Your task to perform on an android device: toggle priority inbox in the gmail app Image 0: 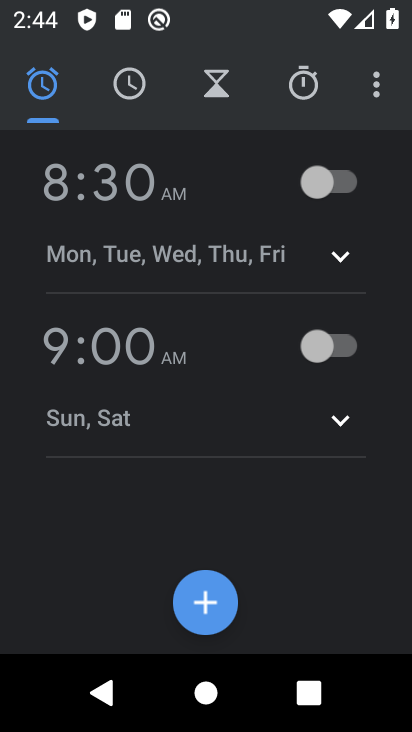
Step 0: press home button
Your task to perform on an android device: toggle priority inbox in the gmail app Image 1: 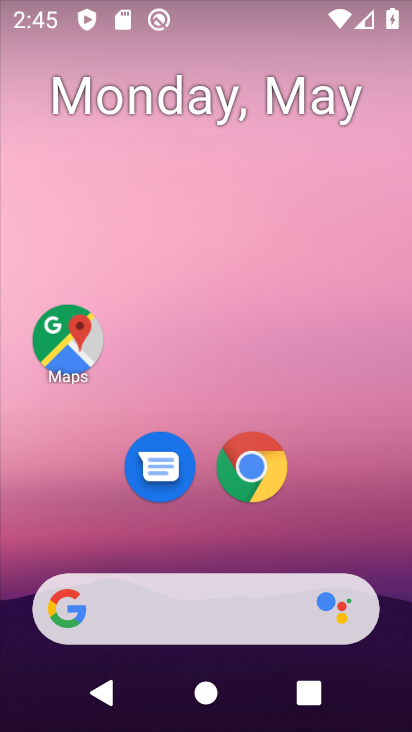
Step 1: drag from (309, 546) to (269, 52)
Your task to perform on an android device: toggle priority inbox in the gmail app Image 2: 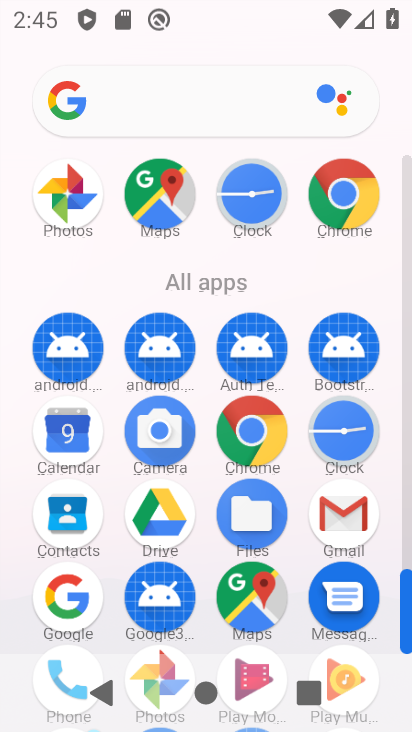
Step 2: click (351, 523)
Your task to perform on an android device: toggle priority inbox in the gmail app Image 3: 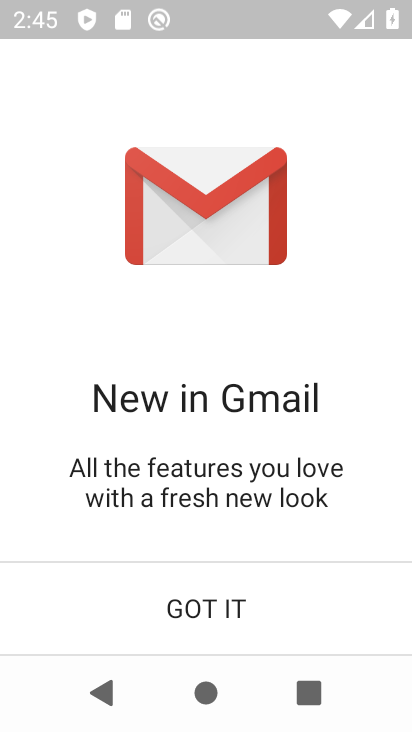
Step 3: click (263, 594)
Your task to perform on an android device: toggle priority inbox in the gmail app Image 4: 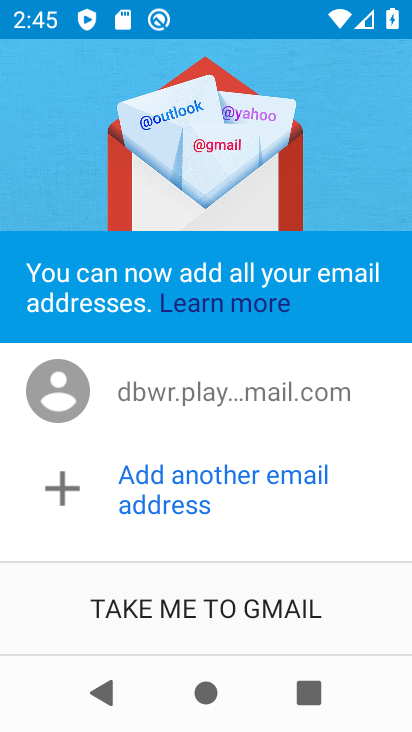
Step 4: click (249, 592)
Your task to perform on an android device: toggle priority inbox in the gmail app Image 5: 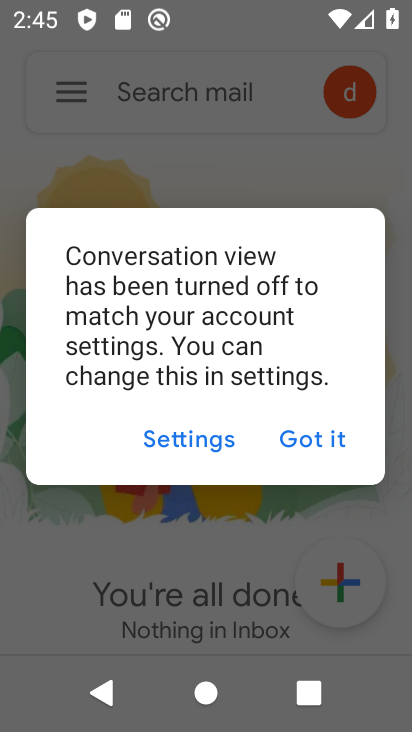
Step 5: click (308, 443)
Your task to perform on an android device: toggle priority inbox in the gmail app Image 6: 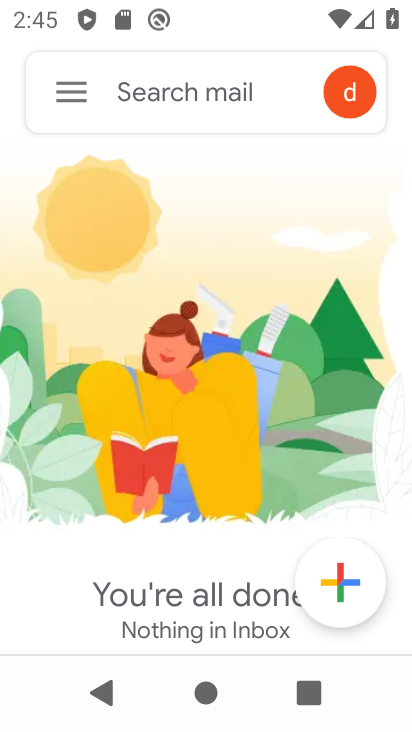
Step 6: click (55, 84)
Your task to perform on an android device: toggle priority inbox in the gmail app Image 7: 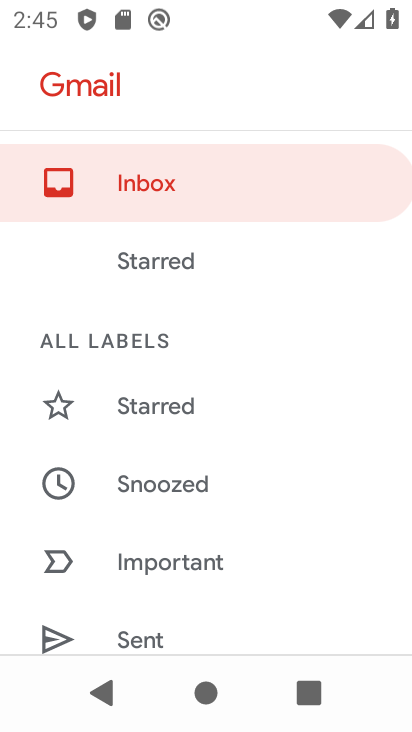
Step 7: drag from (163, 523) to (162, 160)
Your task to perform on an android device: toggle priority inbox in the gmail app Image 8: 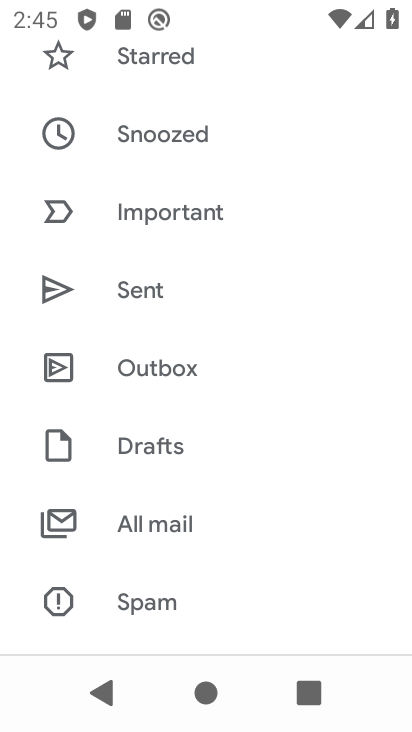
Step 8: drag from (157, 536) to (120, 226)
Your task to perform on an android device: toggle priority inbox in the gmail app Image 9: 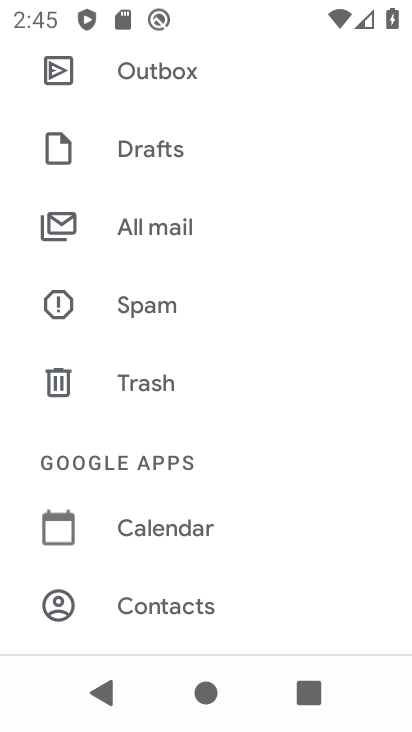
Step 9: drag from (222, 534) to (198, 208)
Your task to perform on an android device: toggle priority inbox in the gmail app Image 10: 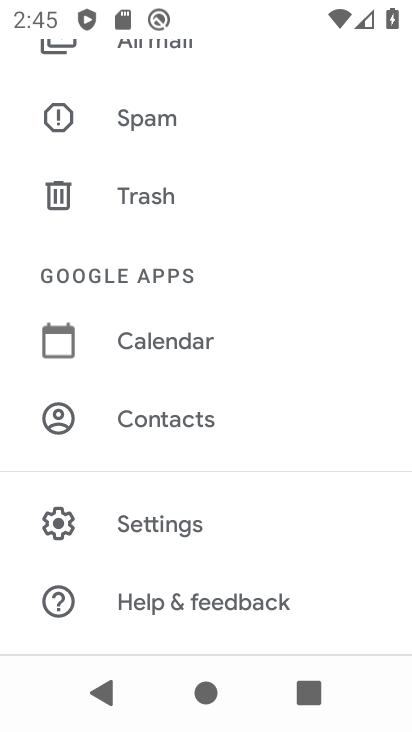
Step 10: click (198, 527)
Your task to perform on an android device: toggle priority inbox in the gmail app Image 11: 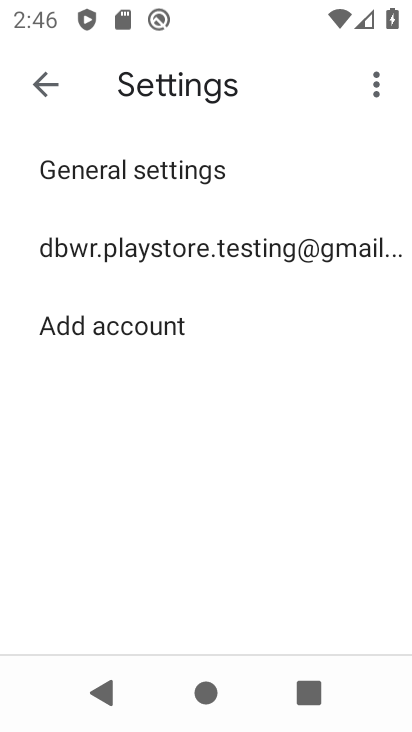
Step 11: click (182, 248)
Your task to perform on an android device: toggle priority inbox in the gmail app Image 12: 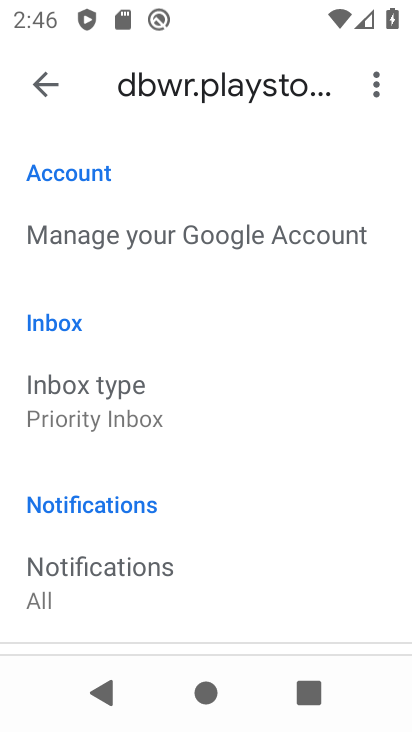
Step 12: click (110, 398)
Your task to perform on an android device: toggle priority inbox in the gmail app Image 13: 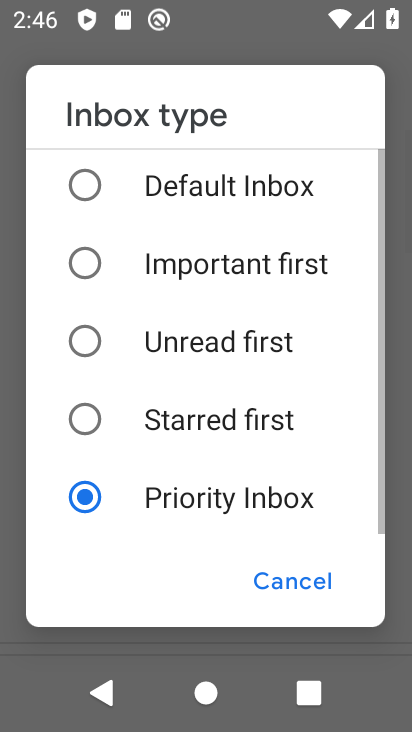
Step 13: click (161, 213)
Your task to perform on an android device: toggle priority inbox in the gmail app Image 14: 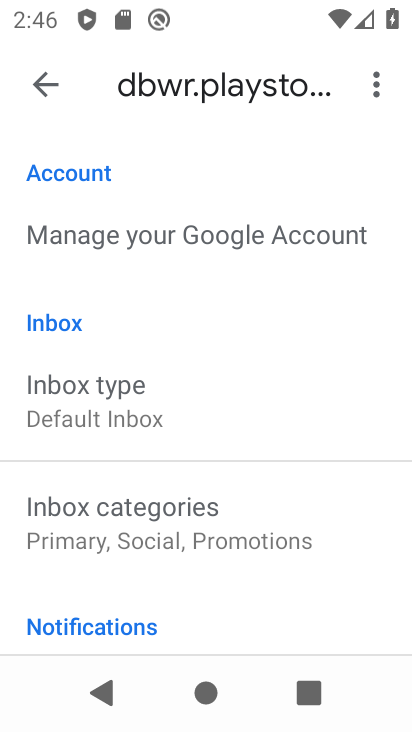
Step 14: task complete